Your task to perform on an android device: toggle location history Image 0: 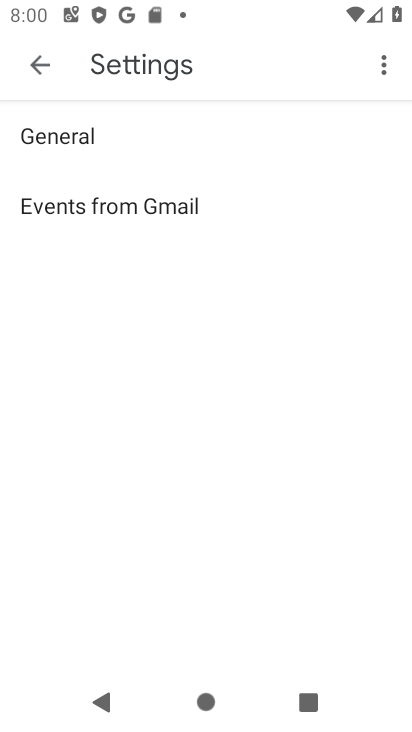
Step 0: press home button
Your task to perform on an android device: toggle location history Image 1: 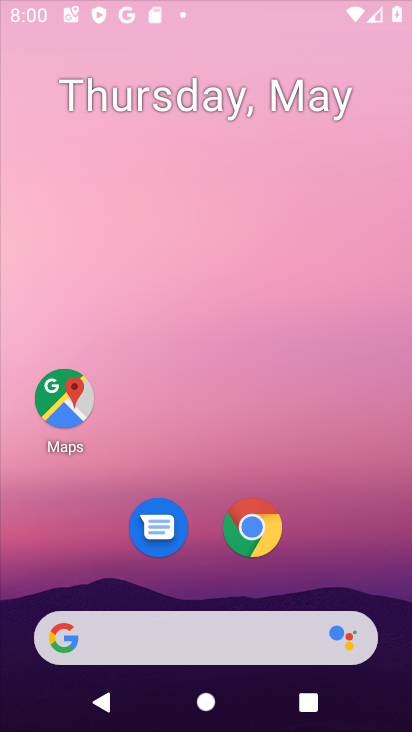
Step 1: drag from (27, 560) to (245, 162)
Your task to perform on an android device: toggle location history Image 2: 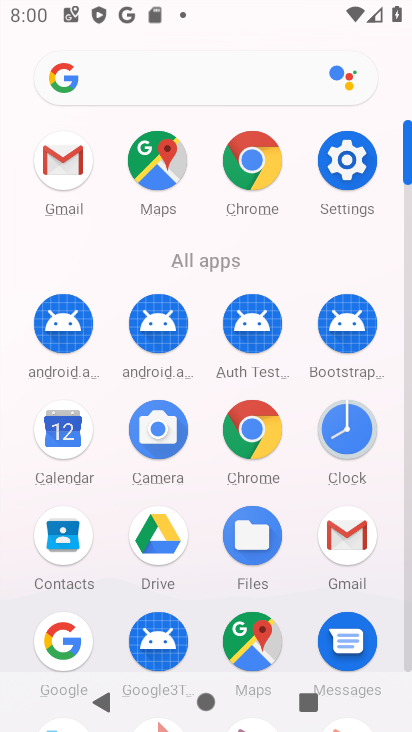
Step 2: click (339, 183)
Your task to perform on an android device: toggle location history Image 3: 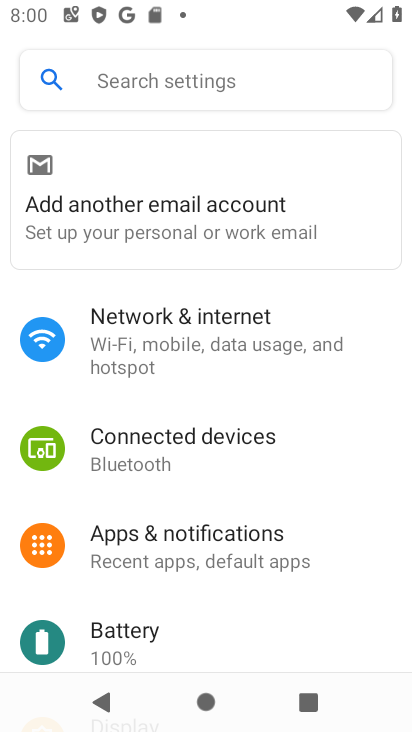
Step 3: drag from (29, 548) to (190, 158)
Your task to perform on an android device: toggle location history Image 4: 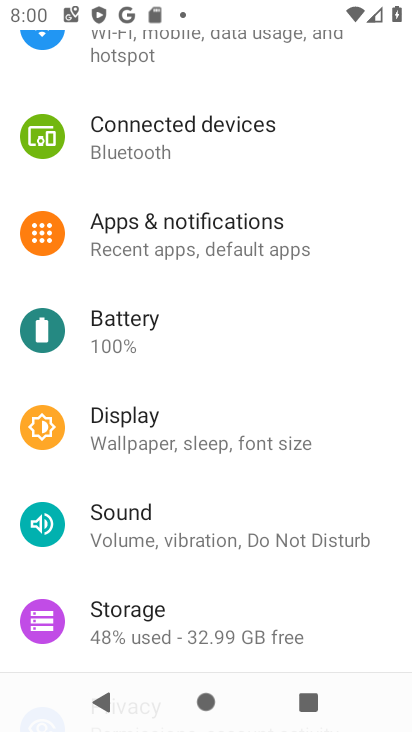
Step 4: drag from (116, 628) to (199, 226)
Your task to perform on an android device: toggle location history Image 5: 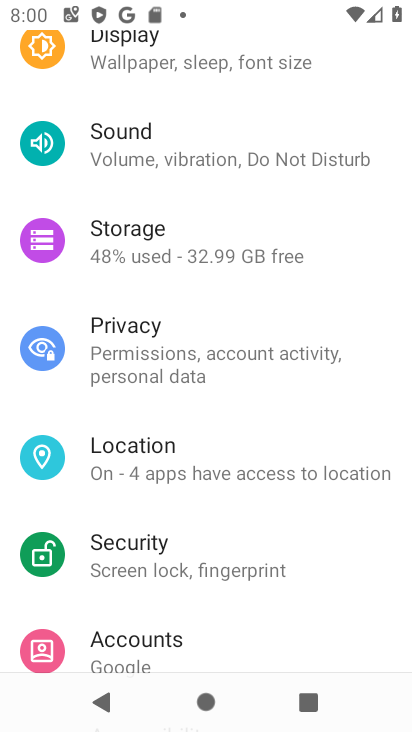
Step 5: click (156, 450)
Your task to perform on an android device: toggle location history Image 6: 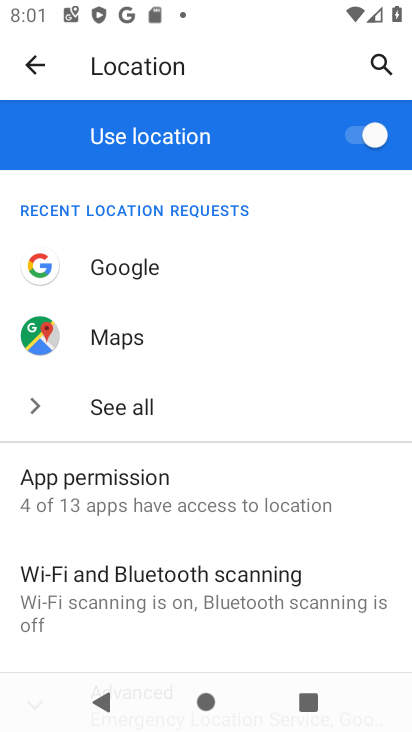
Step 6: drag from (18, 605) to (225, 177)
Your task to perform on an android device: toggle location history Image 7: 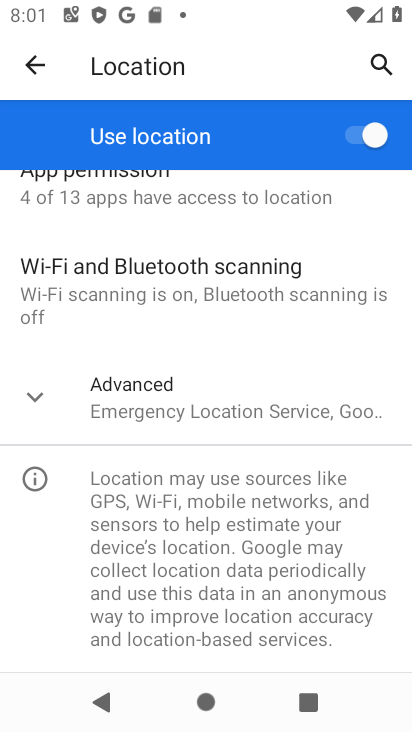
Step 7: click (169, 398)
Your task to perform on an android device: toggle location history Image 8: 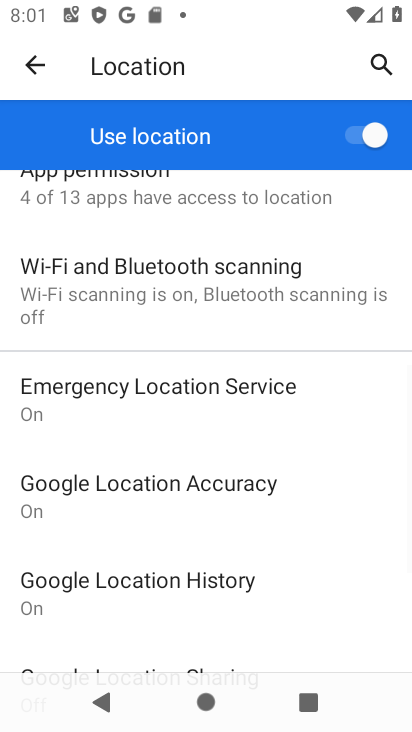
Step 8: click (105, 590)
Your task to perform on an android device: toggle location history Image 9: 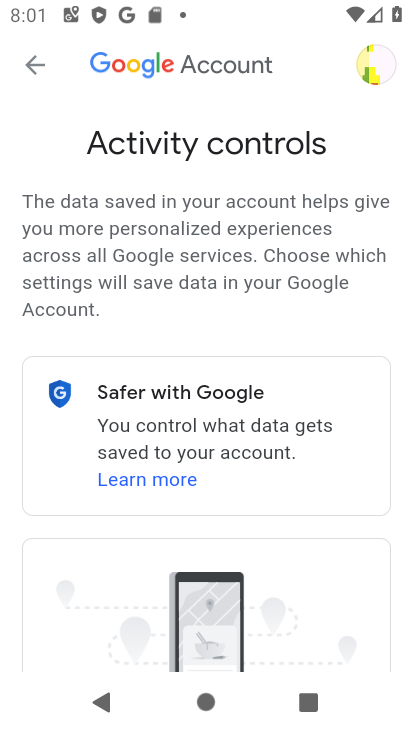
Step 9: drag from (23, 576) to (267, 125)
Your task to perform on an android device: toggle location history Image 10: 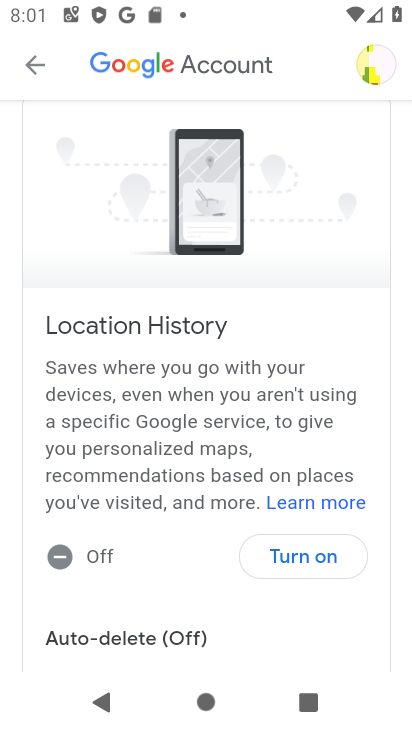
Step 10: click (290, 553)
Your task to perform on an android device: toggle location history Image 11: 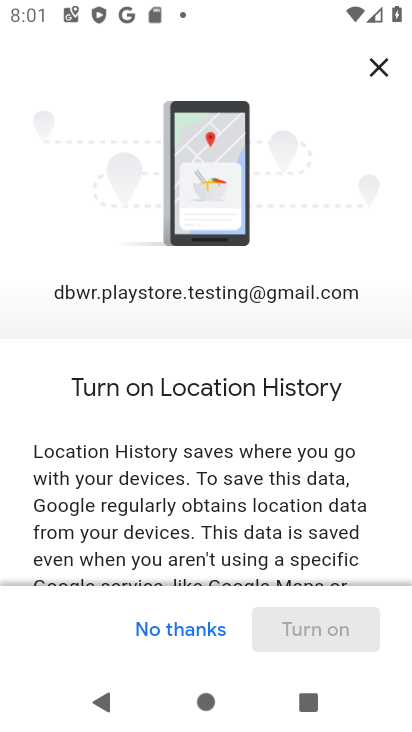
Step 11: drag from (101, 567) to (321, 46)
Your task to perform on an android device: toggle location history Image 12: 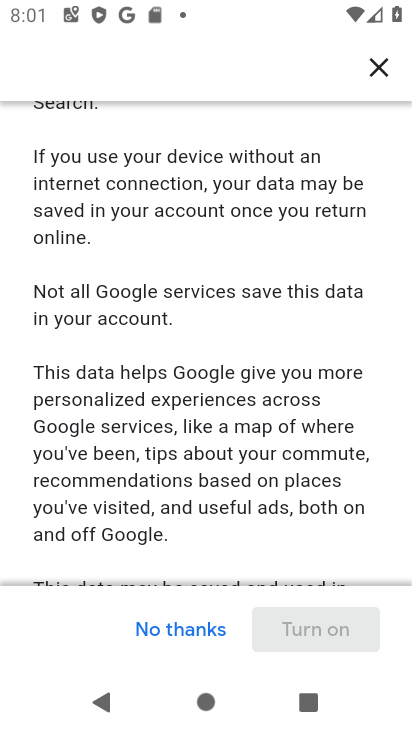
Step 12: drag from (133, 508) to (398, 2)
Your task to perform on an android device: toggle location history Image 13: 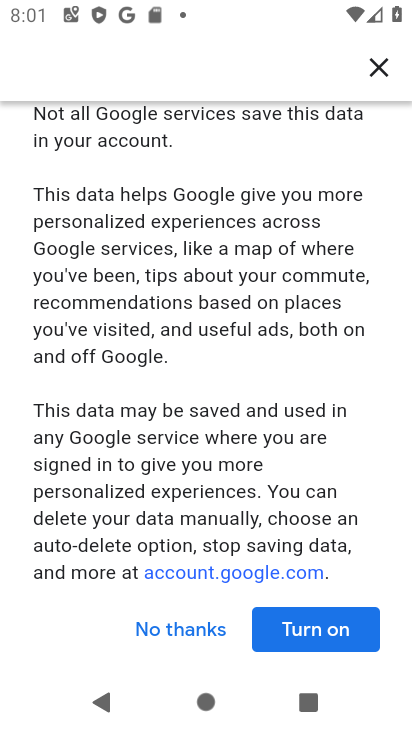
Step 13: drag from (132, 566) to (304, 164)
Your task to perform on an android device: toggle location history Image 14: 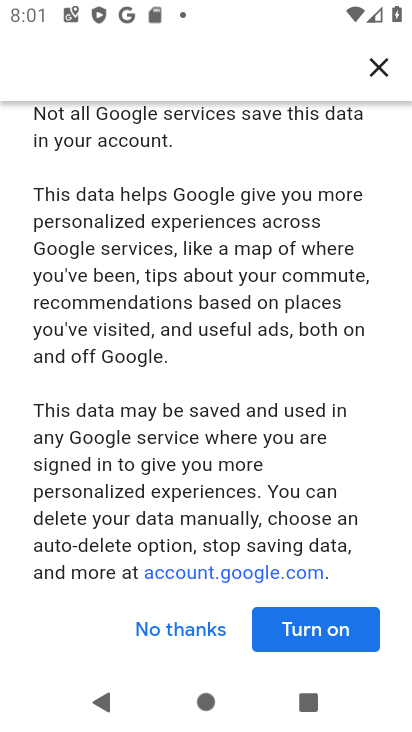
Step 14: click (318, 633)
Your task to perform on an android device: toggle location history Image 15: 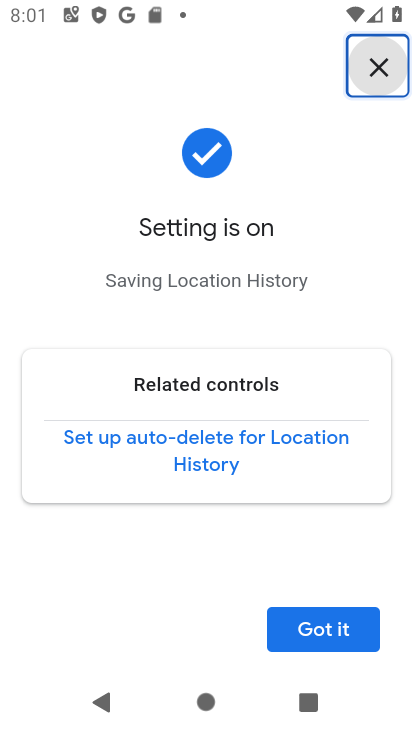
Step 15: click (335, 630)
Your task to perform on an android device: toggle location history Image 16: 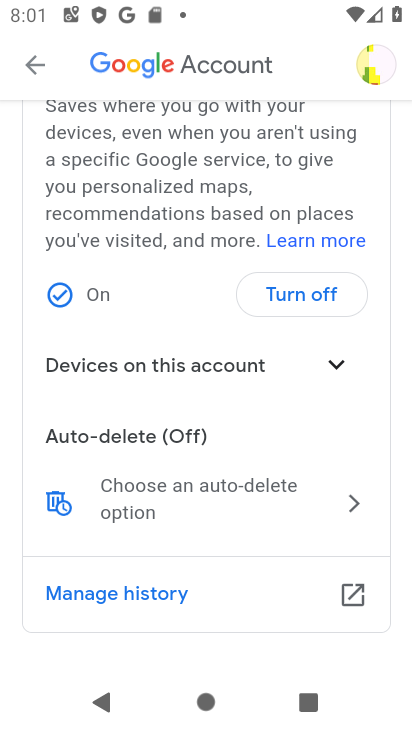
Step 16: task complete